Your task to perform on an android device: turn off location history Image 0: 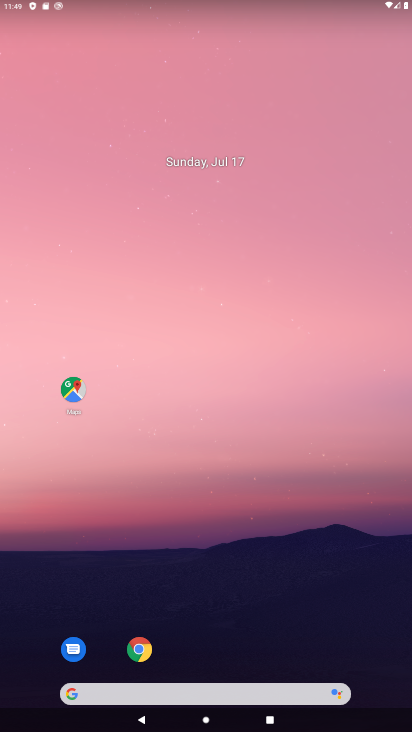
Step 0: click (82, 399)
Your task to perform on an android device: turn off location history Image 1: 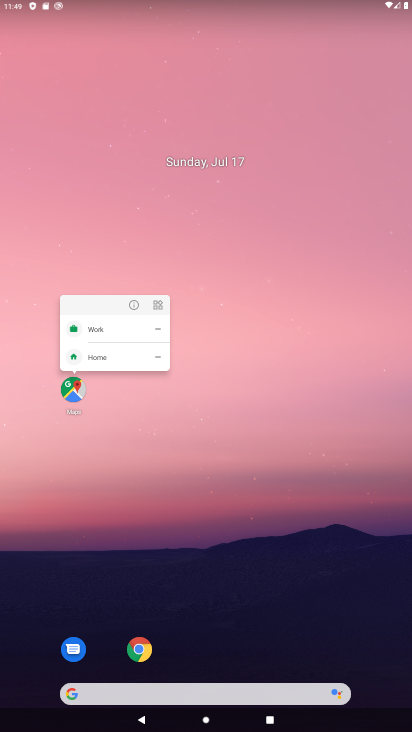
Step 1: click (80, 391)
Your task to perform on an android device: turn off location history Image 2: 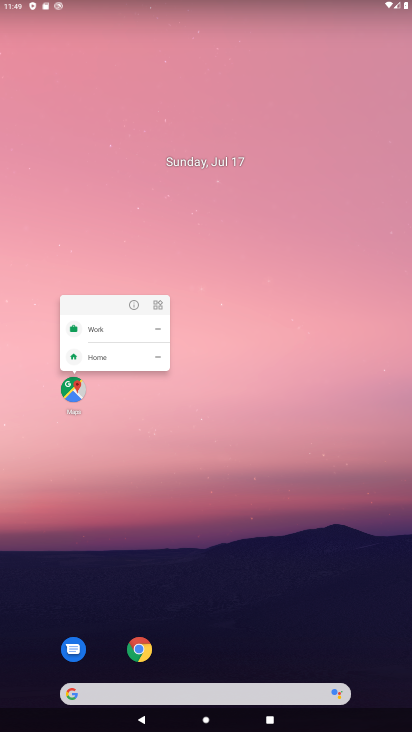
Step 2: click (80, 390)
Your task to perform on an android device: turn off location history Image 3: 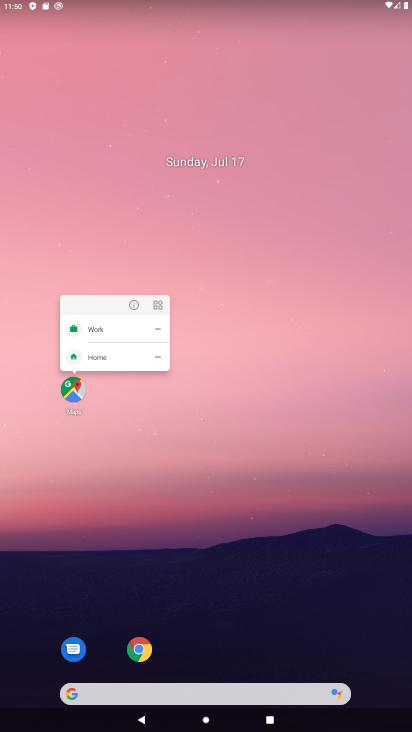
Step 3: task complete